Your task to perform on an android device: change notifications settings Image 0: 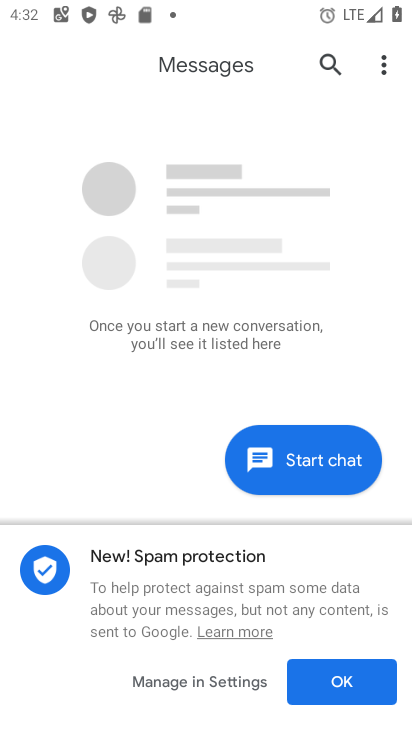
Step 0: press home button
Your task to perform on an android device: change notifications settings Image 1: 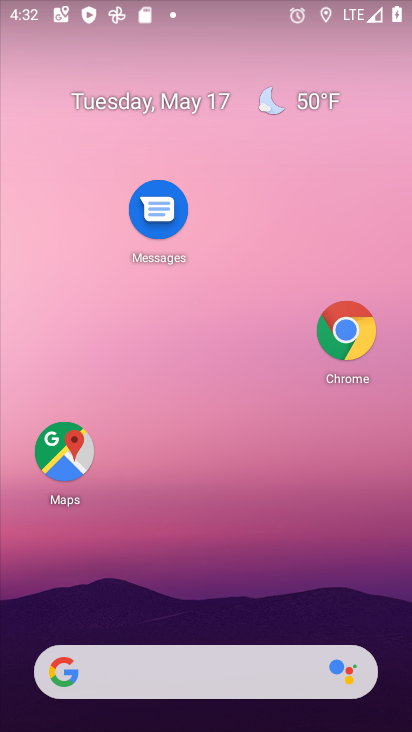
Step 1: drag from (210, 578) to (128, 4)
Your task to perform on an android device: change notifications settings Image 2: 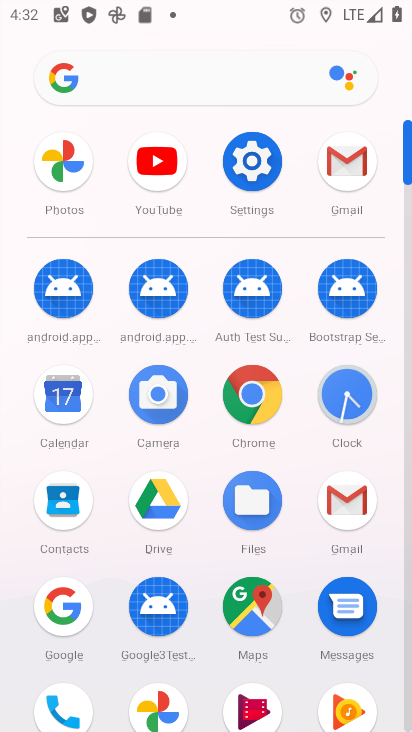
Step 2: click (254, 216)
Your task to perform on an android device: change notifications settings Image 3: 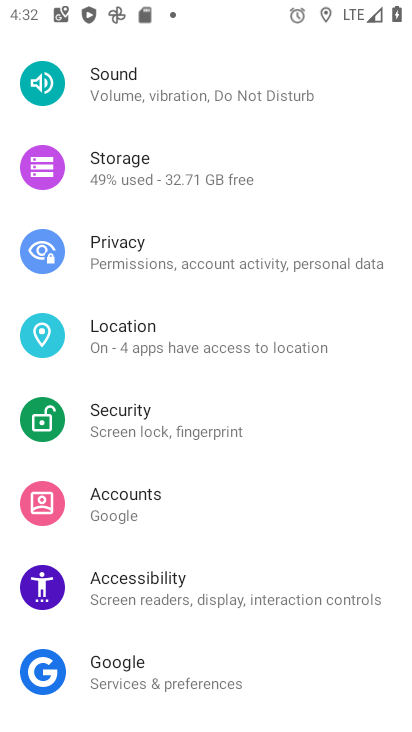
Step 3: drag from (232, 424) to (225, 318)
Your task to perform on an android device: change notifications settings Image 4: 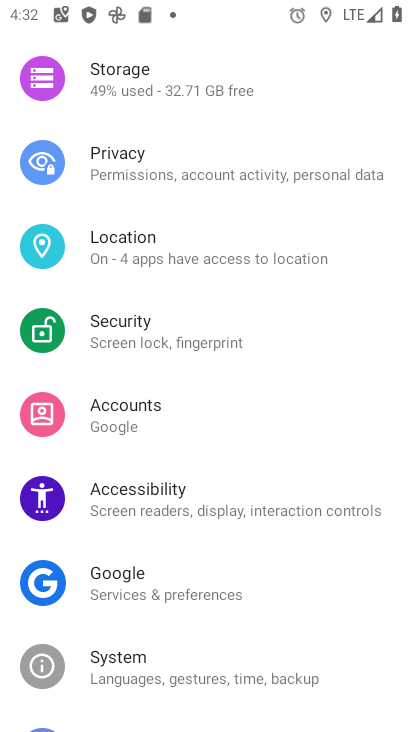
Step 4: drag from (225, 318) to (266, 717)
Your task to perform on an android device: change notifications settings Image 5: 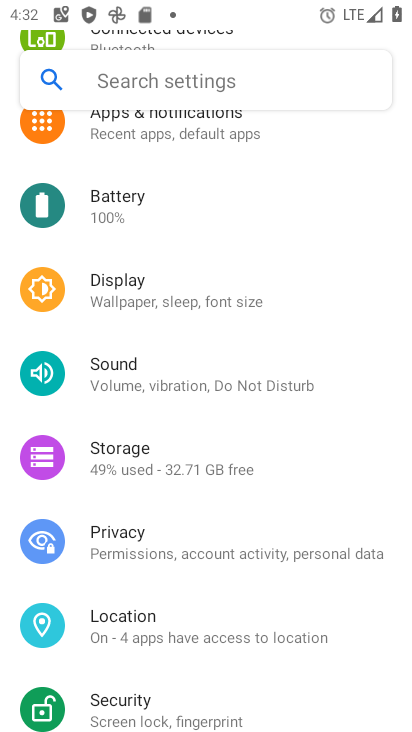
Step 5: click (167, 146)
Your task to perform on an android device: change notifications settings Image 6: 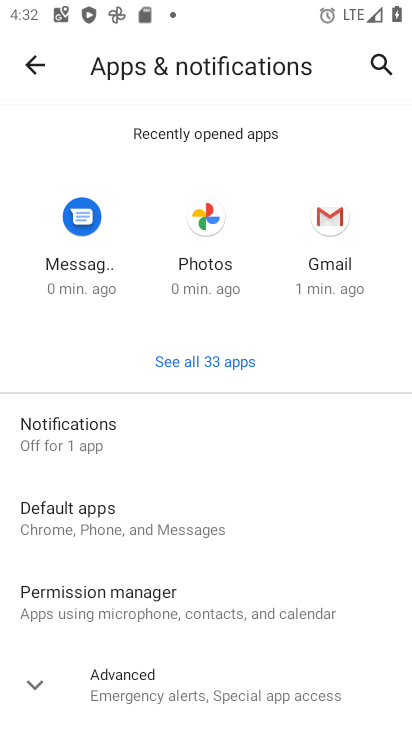
Step 6: click (173, 448)
Your task to perform on an android device: change notifications settings Image 7: 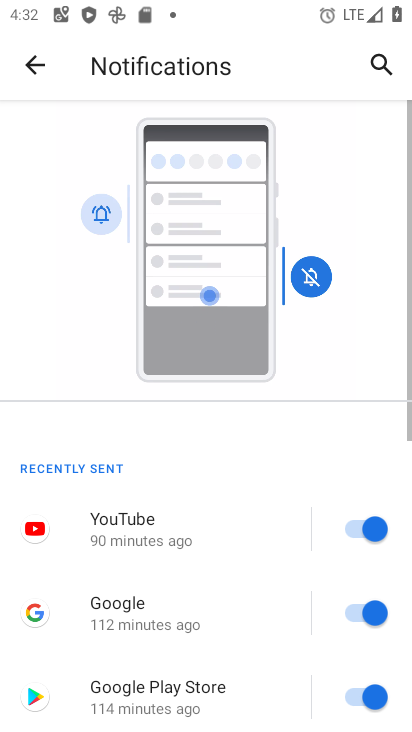
Step 7: drag from (173, 448) to (125, 50)
Your task to perform on an android device: change notifications settings Image 8: 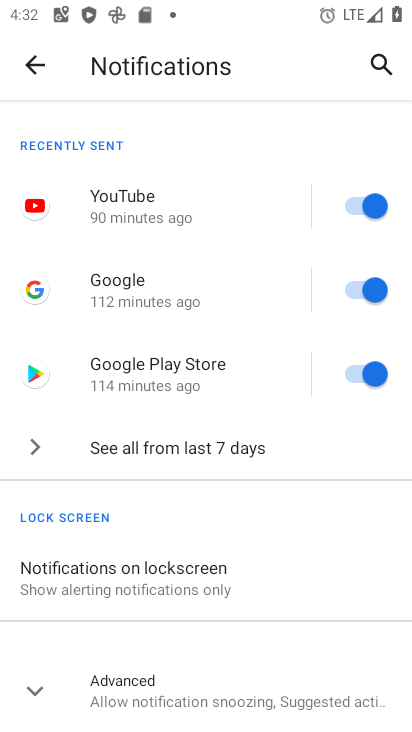
Step 8: drag from (172, 524) to (132, 391)
Your task to perform on an android device: change notifications settings Image 9: 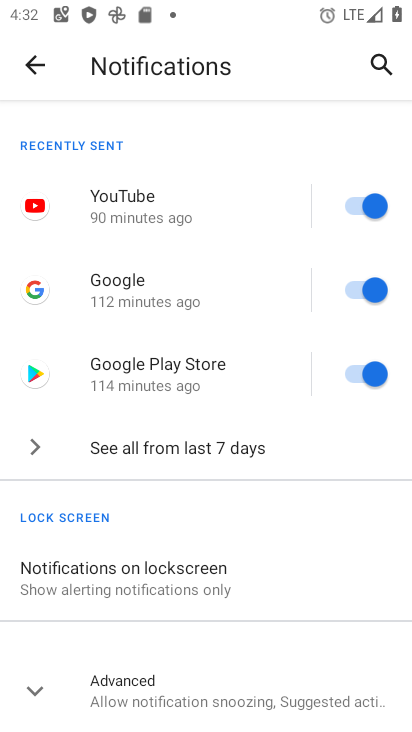
Step 9: click (137, 699)
Your task to perform on an android device: change notifications settings Image 10: 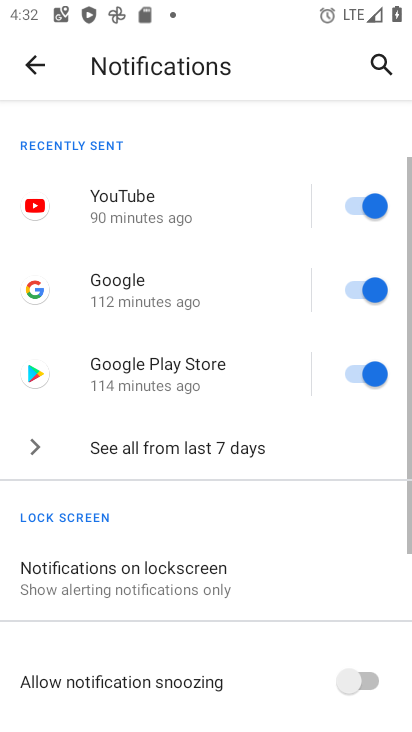
Step 10: task complete